Your task to perform on an android device: open a bookmark in the chrome app Image 0: 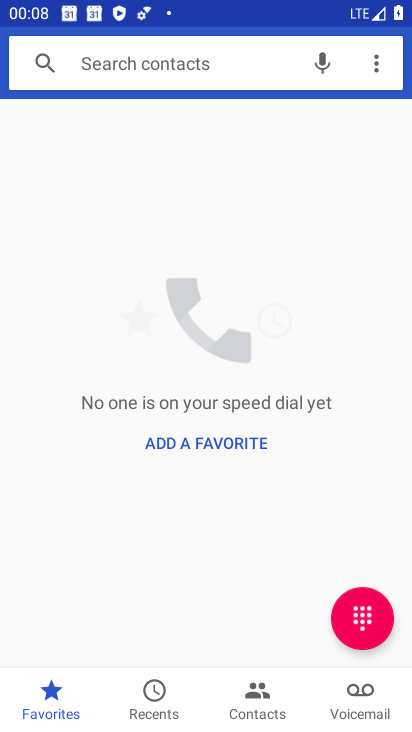
Step 0: press home button
Your task to perform on an android device: open a bookmark in the chrome app Image 1: 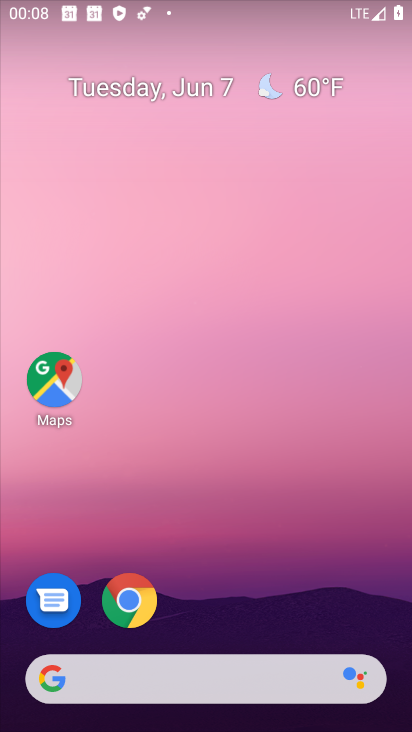
Step 1: click (127, 605)
Your task to perform on an android device: open a bookmark in the chrome app Image 2: 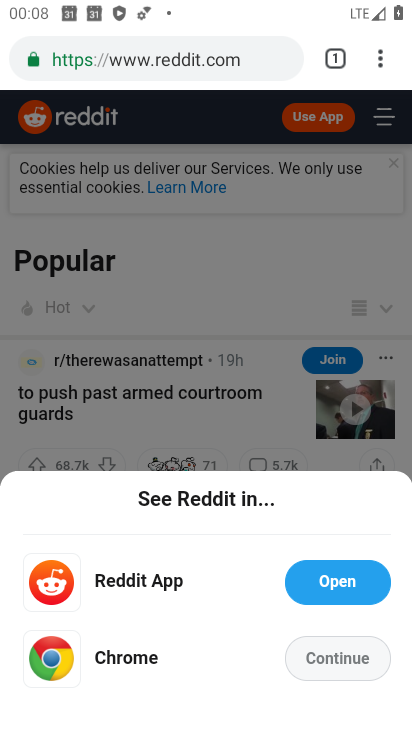
Step 2: click (381, 64)
Your task to perform on an android device: open a bookmark in the chrome app Image 3: 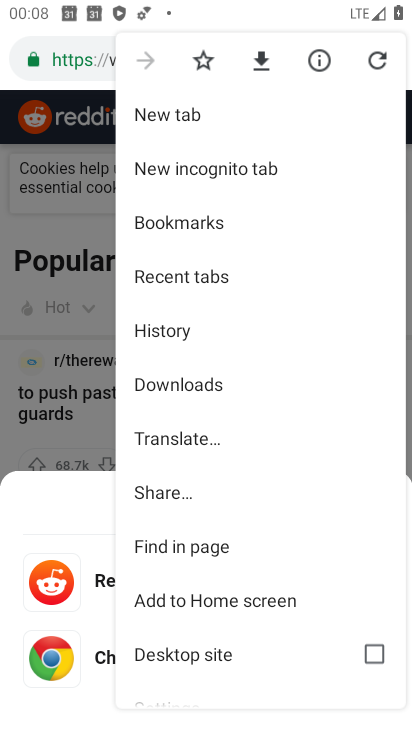
Step 3: click (176, 215)
Your task to perform on an android device: open a bookmark in the chrome app Image 4: 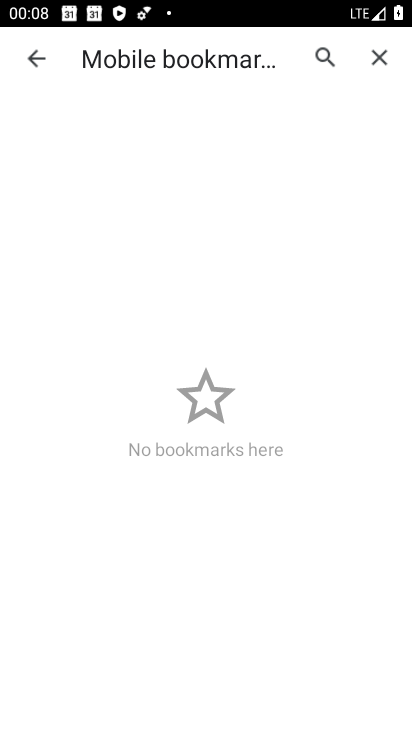
Step 4: task complete